Your task to perform on an android device: Is it going to rain tomorrow? Image 0: 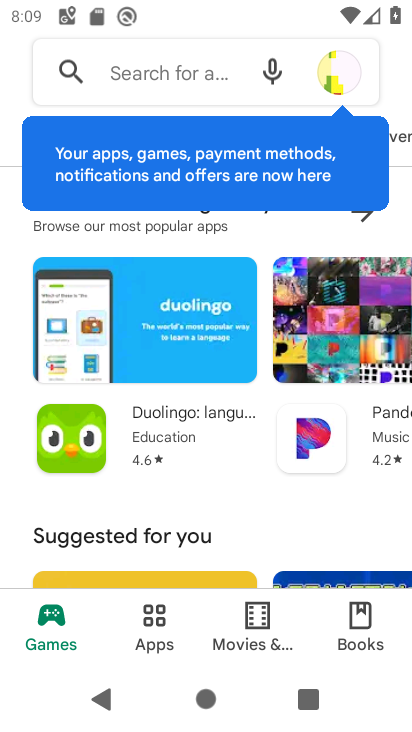
Step 0: press home button
Your task to perform on an android device: Is it going to rain tomorrow? Image 1: 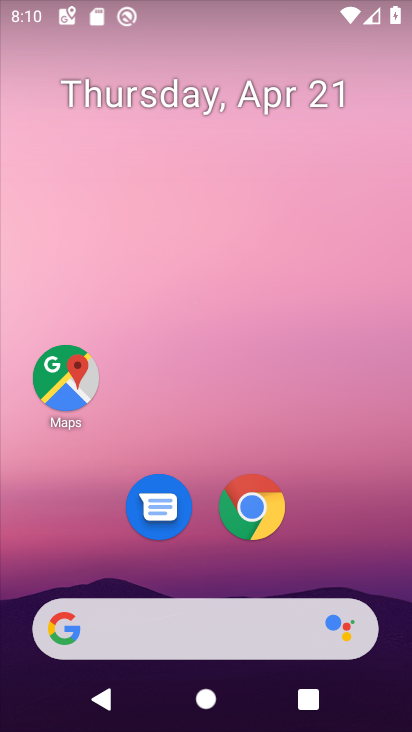
Step 1: drag from (344, 510) to (341, 129)
Your task to perform on an android device: Is it going to rain tomorrow? Image 2: 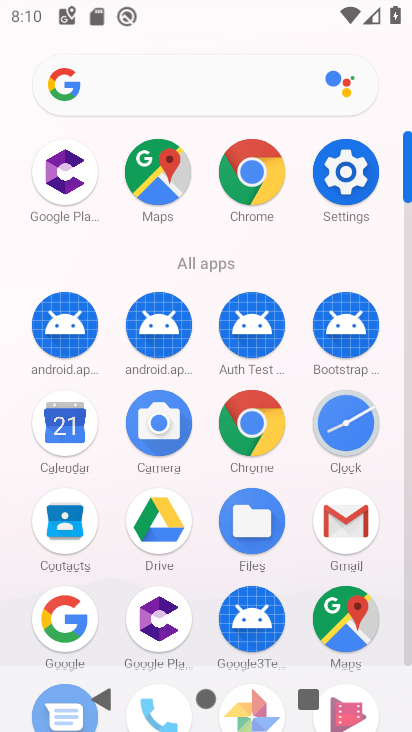
Step 2: click (250, 424)
Your task to perform on an android device: Is it going to rain tomorrow? Image 3: 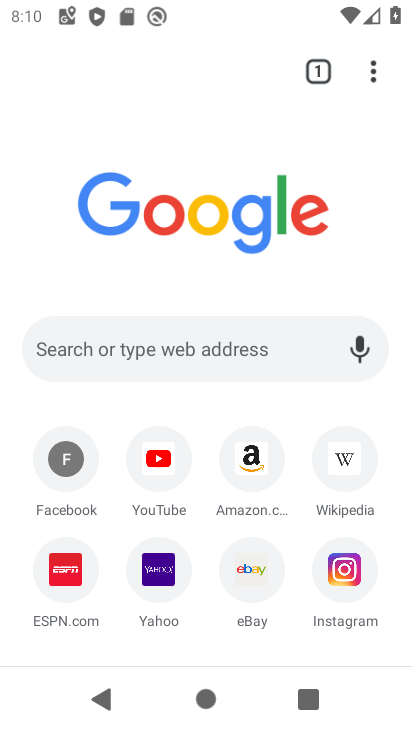
Step 3: click (236, 366)
Your task to perform on an android device: Is it going to rain tomorrow? Image 4: 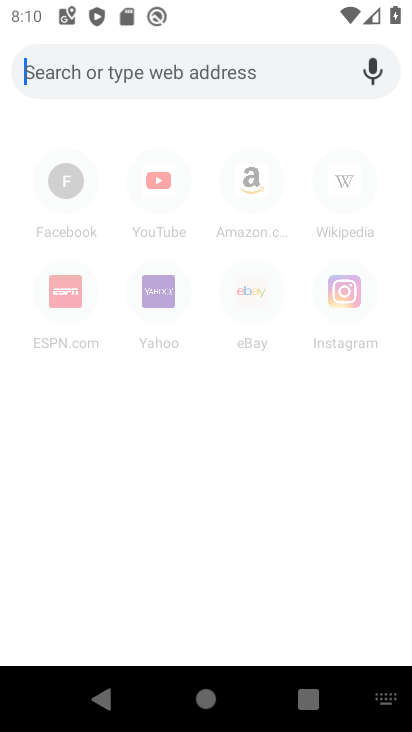
Step 4: type "is it going to rain tomorrow"
Your task to perform on an android device: Is it going to rain tomorrow? Image 5: 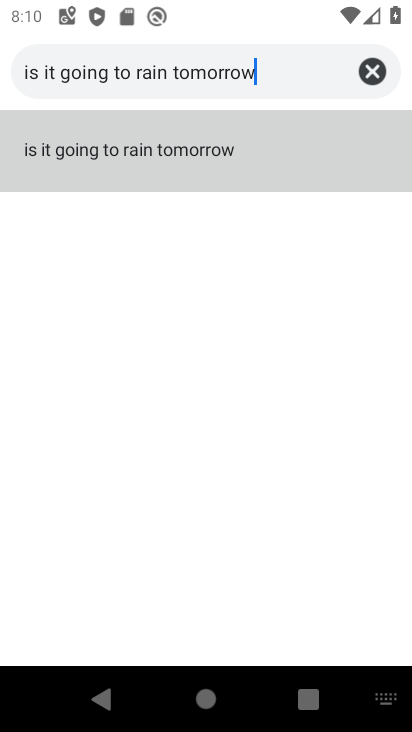
Step 5: click (116, 151)
Your task to perform on an android device: Is it going to rain tomorrow? Image 6: 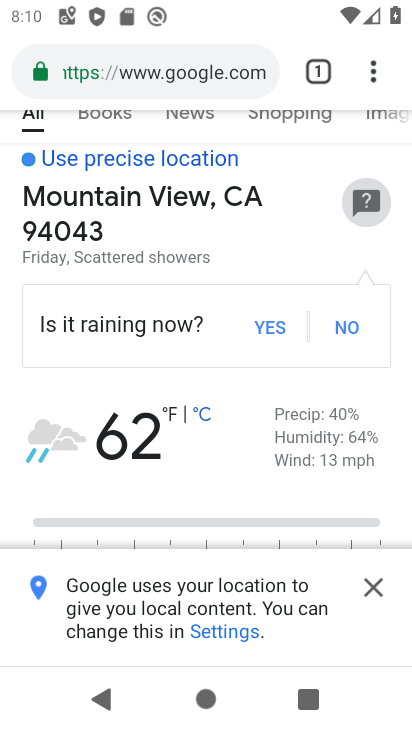
Step 6: task complete